Your task to perform on an android device: What's the weather going to be this weekend? Image 0: 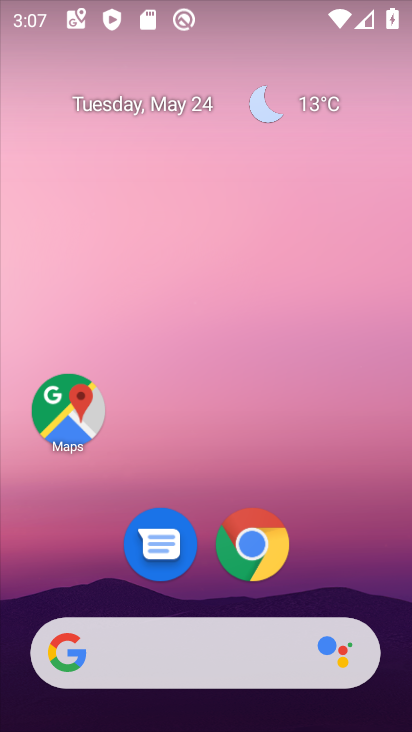
Step 0: drag from (388, 548) to (290, 6)
Your task to perform on an android device: What's the weather going to be this weekend? Image 1: 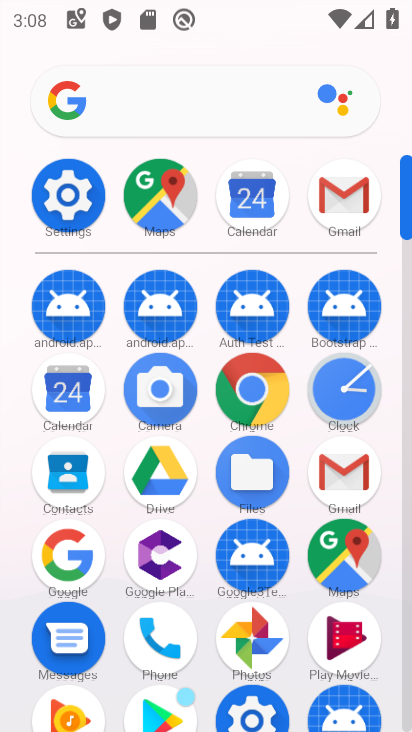
Step 1: click (63, 406)
Your task to perform on an android device: What's the weather going to be this weekend? Image 2: 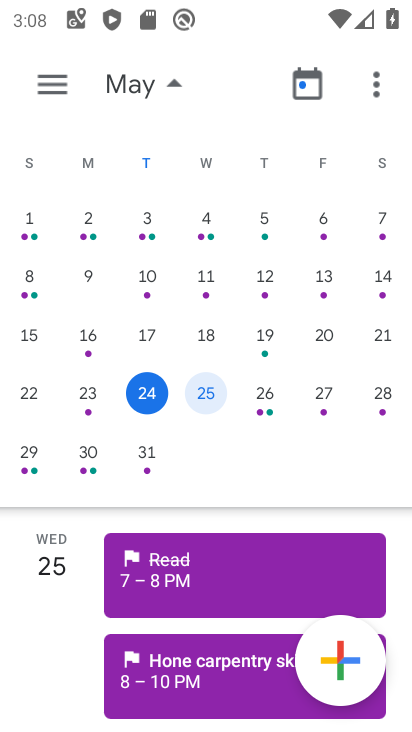
Step 2: click (263, 406)
Your task to perform on an android device: What's the weather going to be this weekend? Image 3: 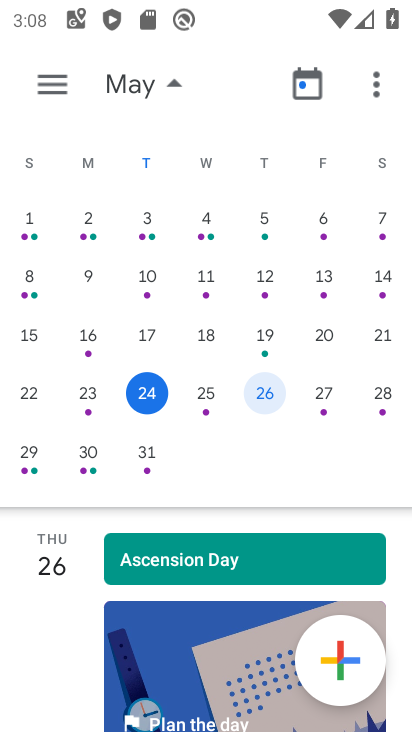
Step 3: task complete